Your task to perform on an android device: turn notification dots off Image 0: 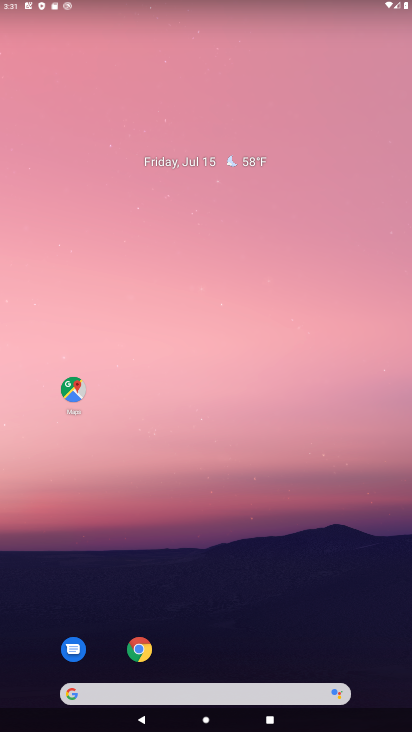
Step 0: click (232, 163)
Your task to perform on an android device: turn notification dots off Image 1: 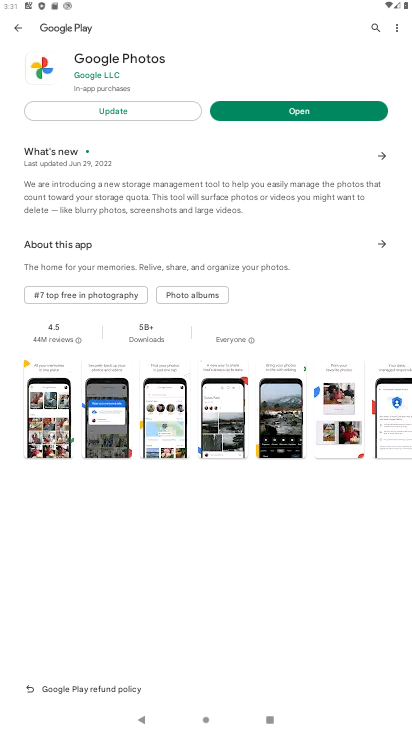
Step 1: press home button
Your task to perform on an android device: turn notification dots off Image 2: 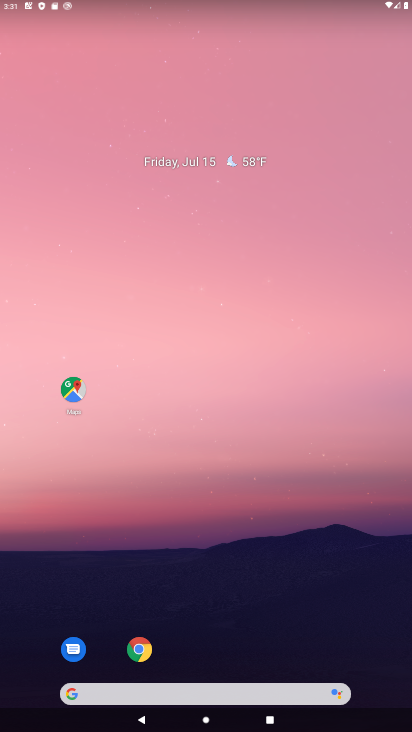
Step 2: drag from (231, 719) to (237, 143)
Your task to perform on an android device: turn notification dots off Image 3: 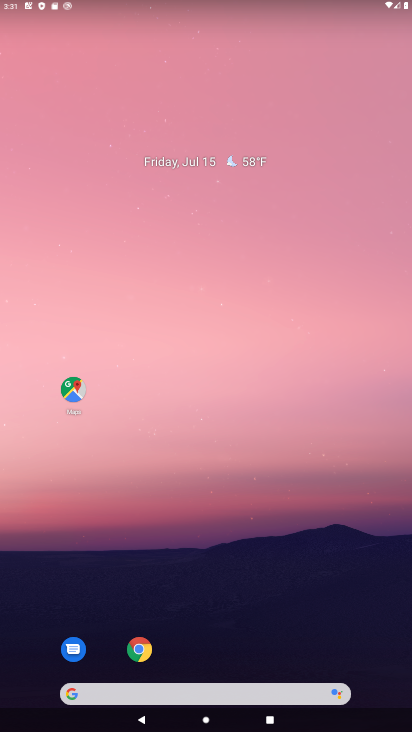
Step 3: drag from (236, 727) to (239, 157)
Your task to perform on an android device: turn notification dots off Image 4: 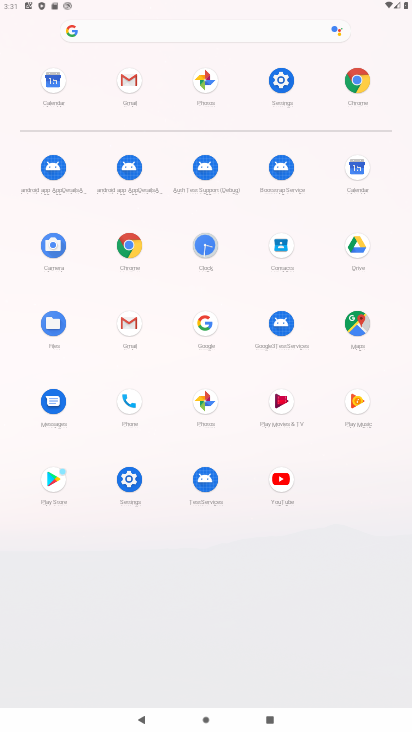
Step 4: click (280, 84)
Your task to perform on an android device: turn notification dots off Image 5: 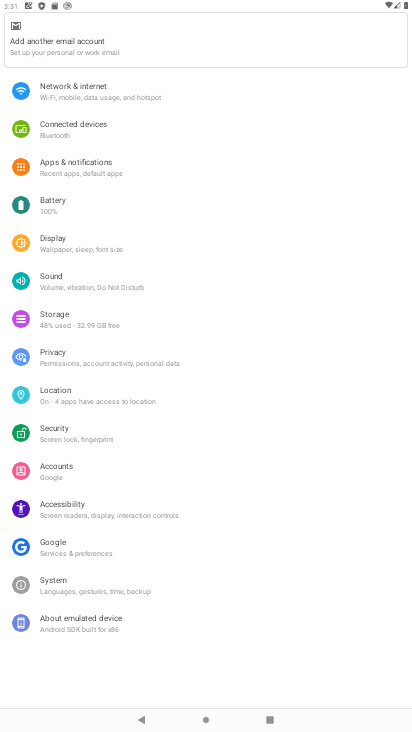
Step 5: click (78, 164)
Your task to perform on an android device: turn notification dots off Image 6: 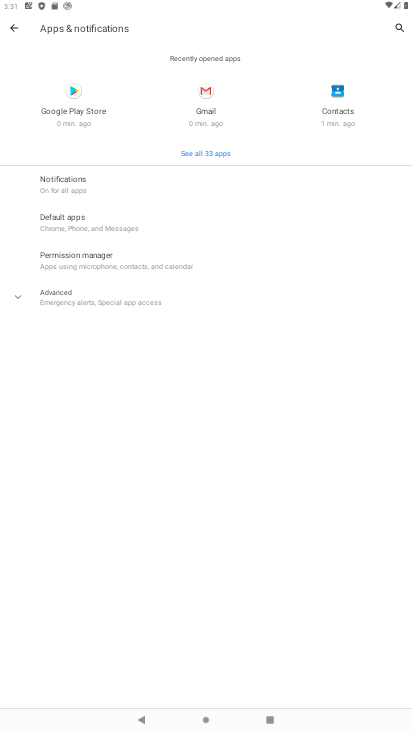
Step 6: click (70, 183)
Your task to perform on an android device: turn notification dots off Image 7: 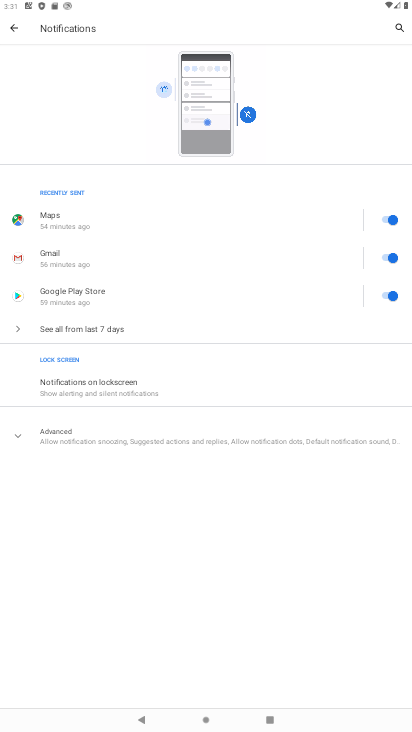
Step 7: click (119, 433)
Your task to perform on an android device: turn notification dots off Image 8: 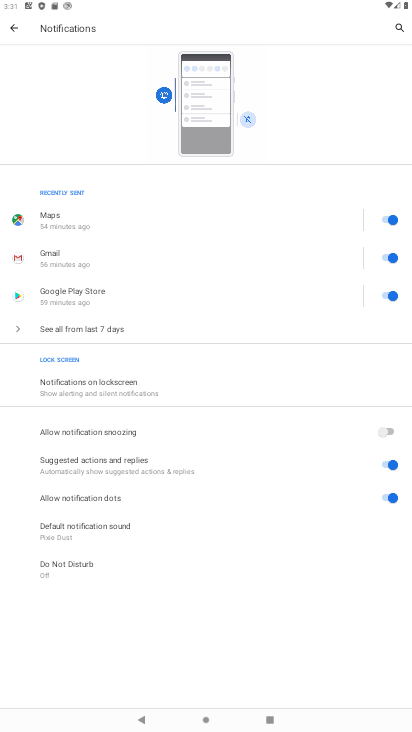
Step 8: click (391, 504)
Your task to perform on an android device: turn notification dots off Image 9: 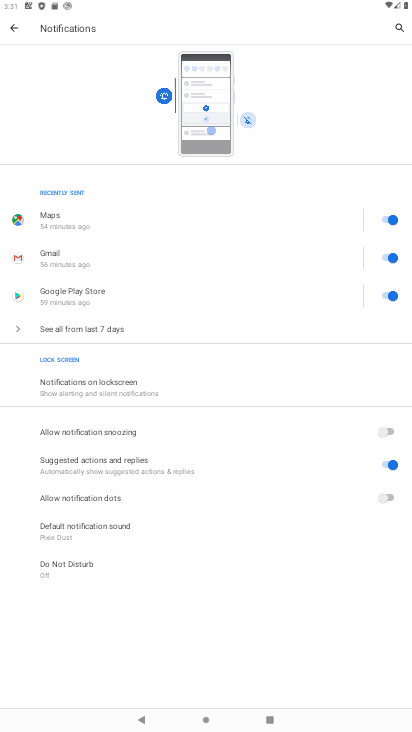
Step 9: task complete